Your task to perform on an android device: turn on the 24-hour format for clock Image 0: 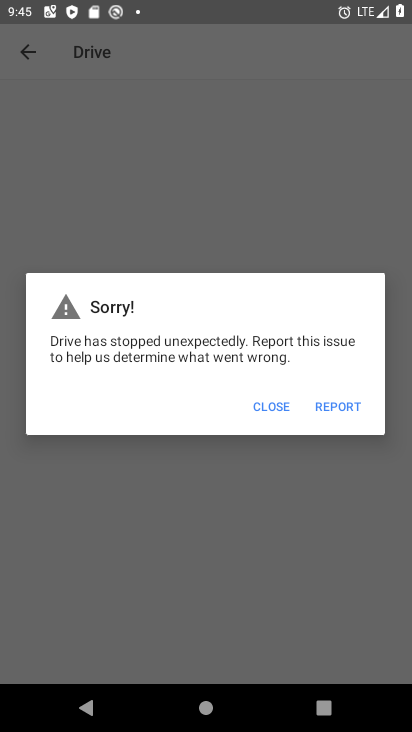
Step 0: press home button
Your task to perform on an android device: turn on the 24-hour format for clock Image 1: 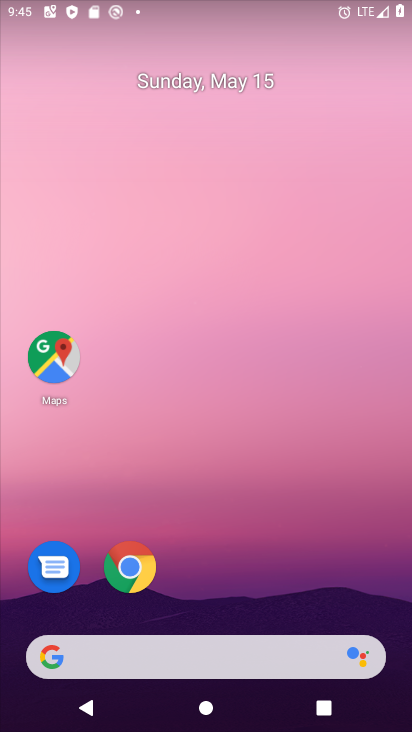
Step 1: drag from (209, 358) to (266, 159)
Your task to perform on an android device: turn on the 24-hour format for clock Image 2: 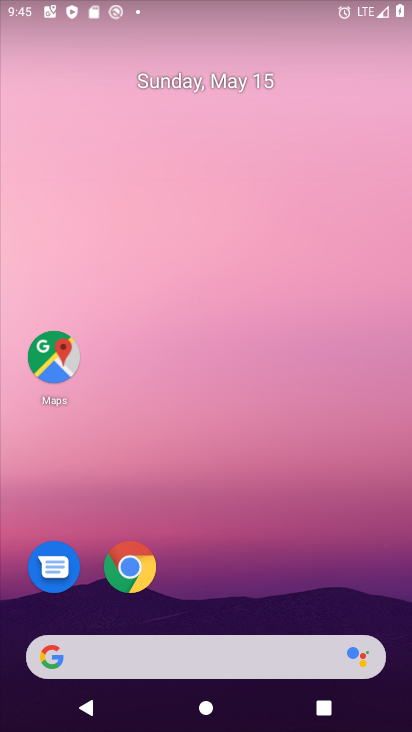
Step 2: drag from (250, 722) to (306, 79)
Your task to perform on an android device: turn on the 24-hour format for clock Image 3: 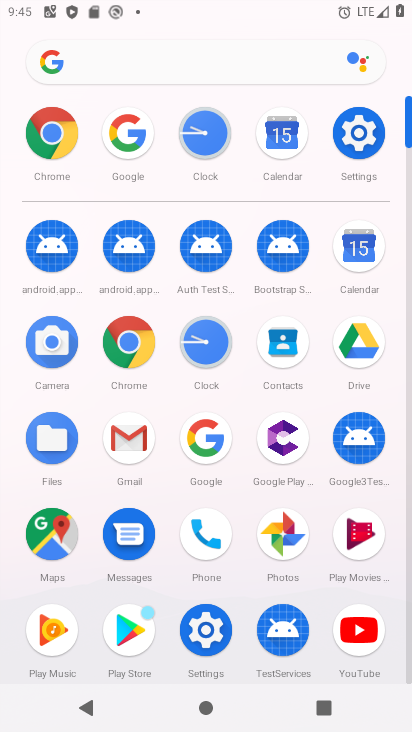
Step 3: click (218, 337)
Your task to perform on an android device: turn on the 24-hour format for clock Image 4: 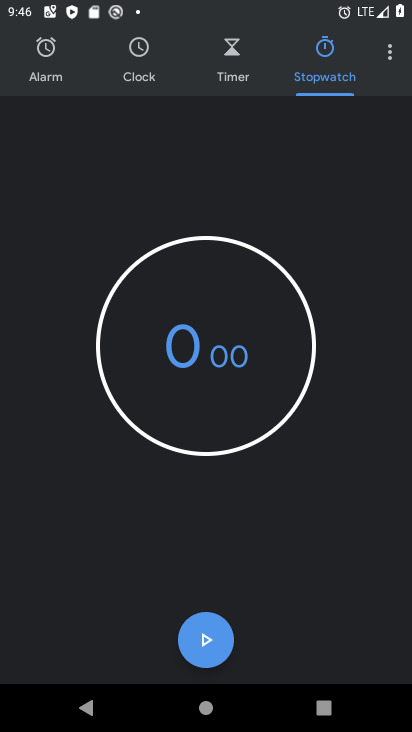
Step 4: click (392, 53)
Your task to perform on an android device: turn on the 24-hour format for clock Image 5: 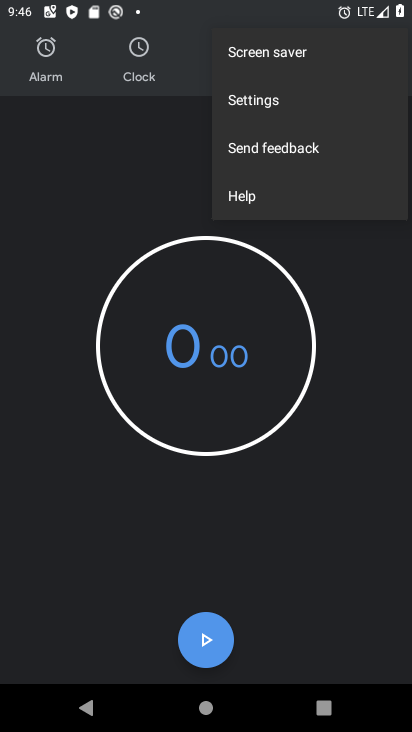
Step 5: click (333, 111)
Your task to perform on an android device: turn on the 24-hour format for clock Image 6: 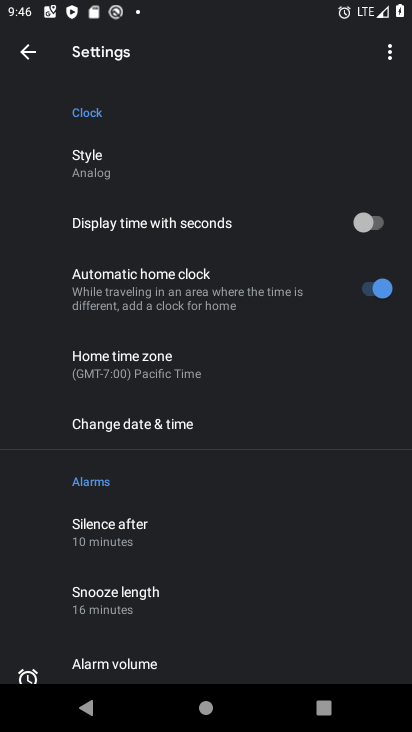
Step 6: click (181, 426)
Your task to perform on an android device: turn on the 24-hour format for clock Image 7: 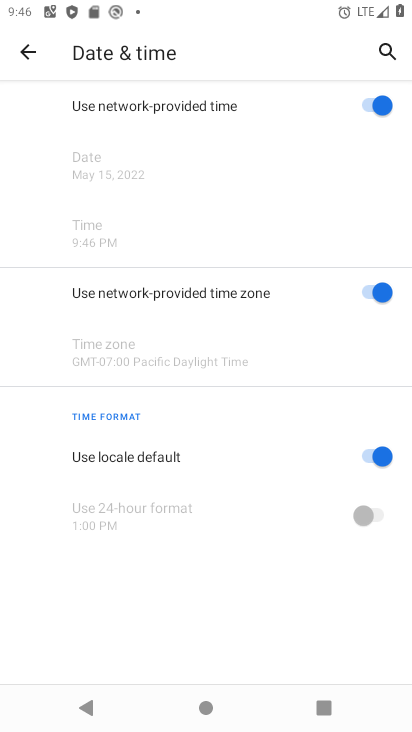
Step 7: click (374, 455)
Your task to perform on an android device: turn on the 24-hour format for clock Image 8: 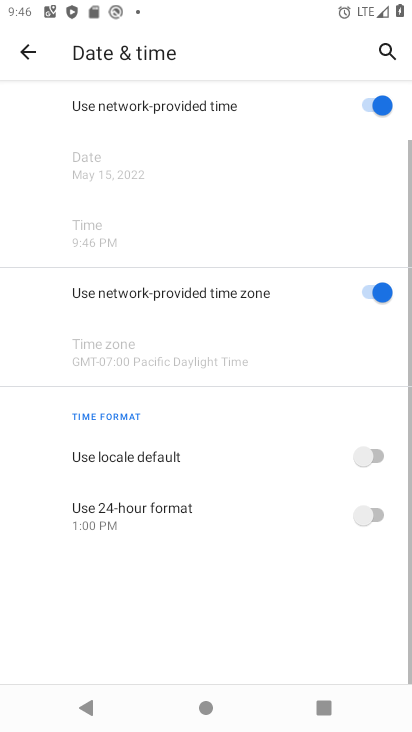
Step 8: click (370, 522)
Your task to perform on an android device: turn on the 24-hour format for clock Image 9: 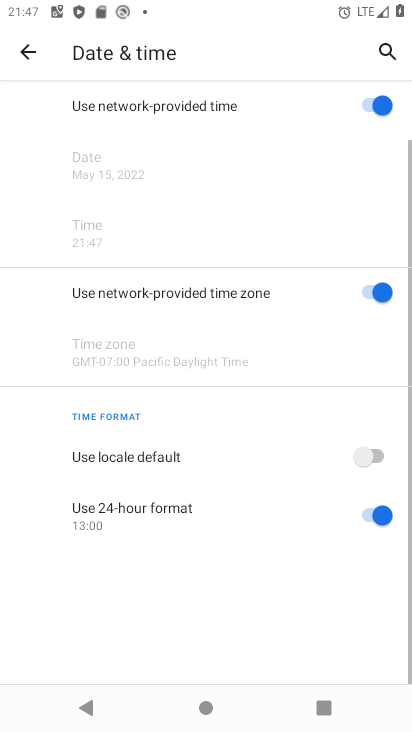
Step 9: task complete